Your task to perform on an android device: change the upload size in google photos Image 0: 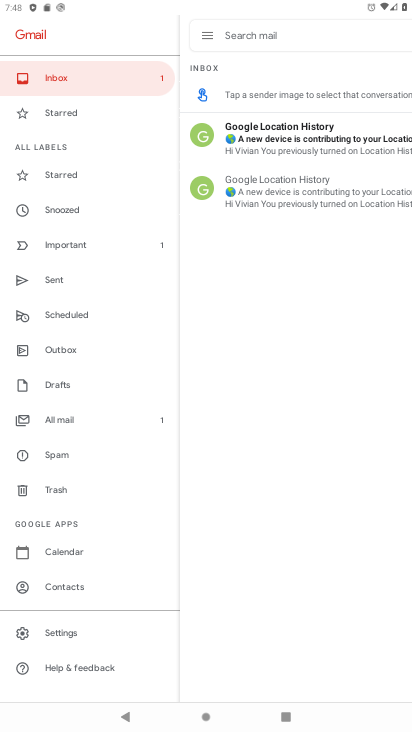
Step 0: press home button
Your task to perform on an android device: change the upload size in google photos Image 1: 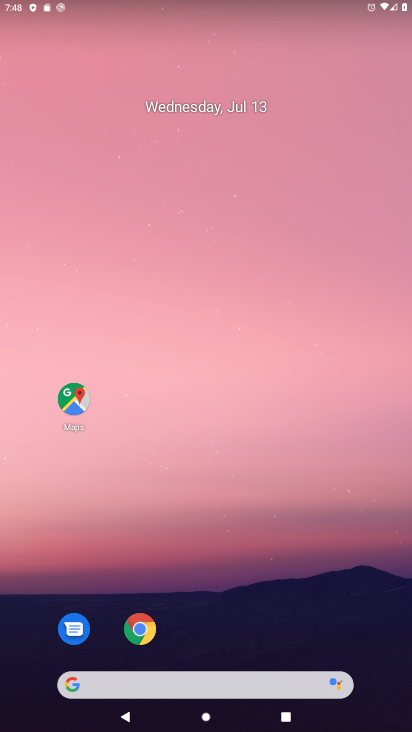
Step 1: click (136, 154)
Your task to perform on an android device: change the upload size in google photos Image 2: 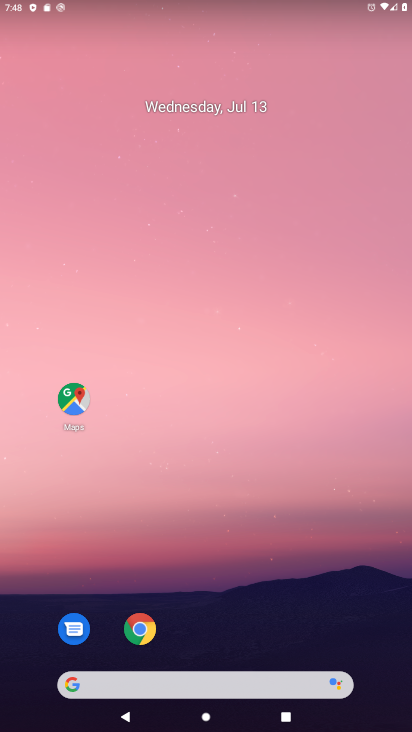
Step 2: drag from (35, 696) to (251, 7)
Your task to perform on an android device: change the upload size in google photos Image 3: 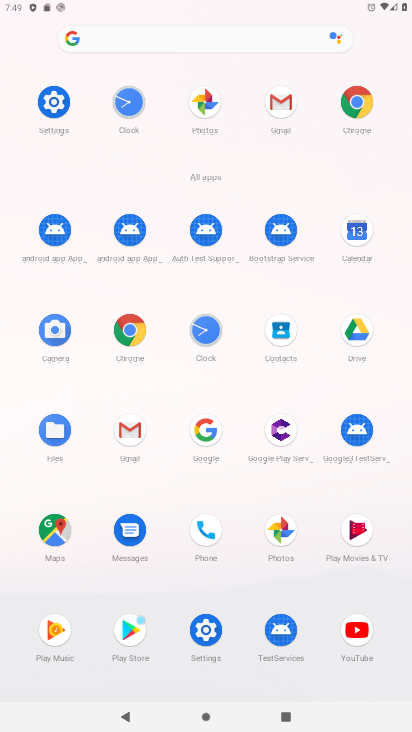
Step 3: click (284, 533)
Your task to perform on an android device: change the upload size in google photos Image 4: 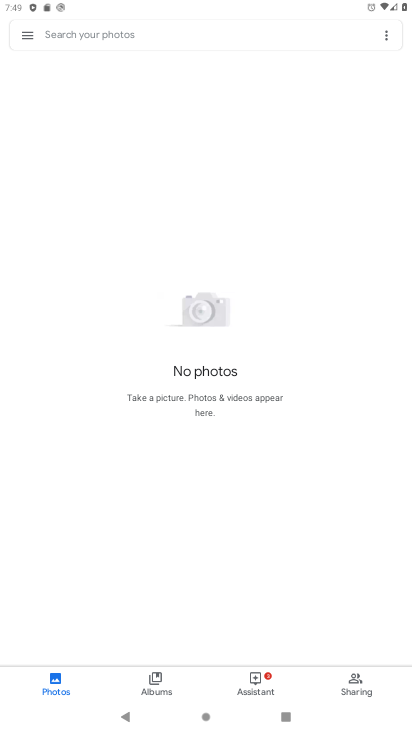
Step 4: click (26, 32)
Your task to perform on an android device: change the upload size in google photos Image 5: 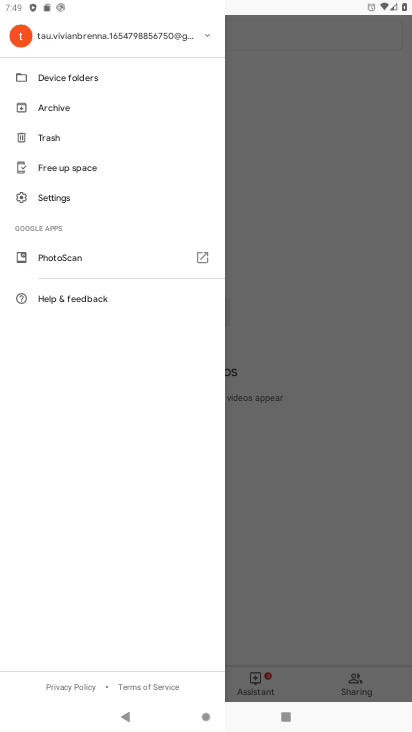
Step 5: click (70, 198)
Your task to perform on an android device: change the upload size in google photos Image 6: 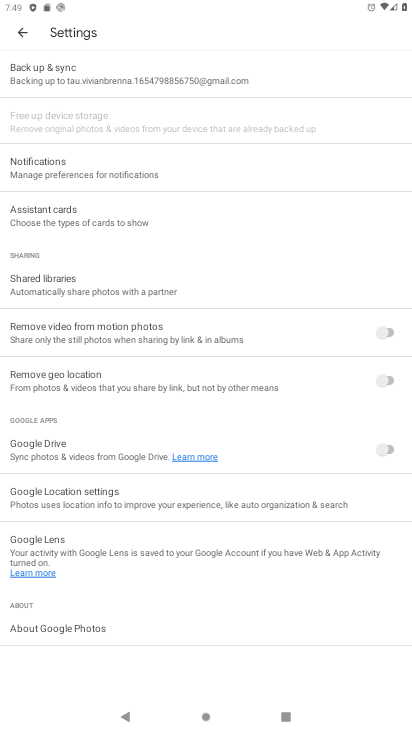
Step 6: click (71, 174)
Your task to perform on an android device: change the upload size in google photos Image 7: 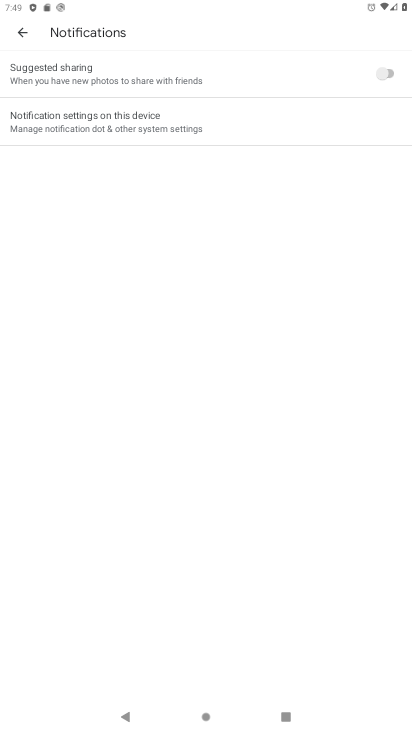
Step 7: click (71, 133)
Your task to perform on an android device: change the upload size in google photos Image 8: 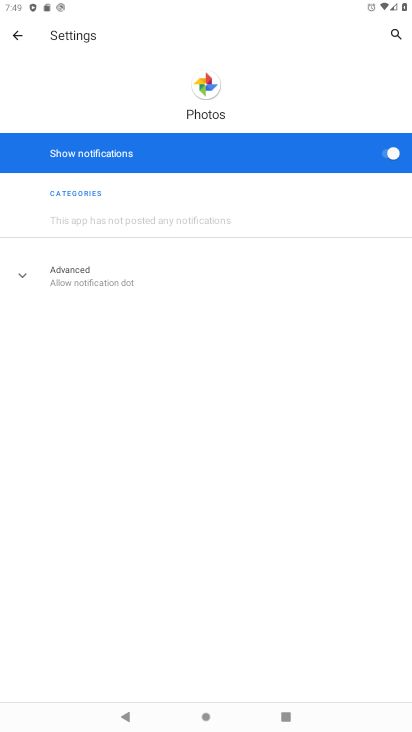
Step 8: click (14, 39)
Your task to perform on an android device: change the upload size in google photos Image 9: 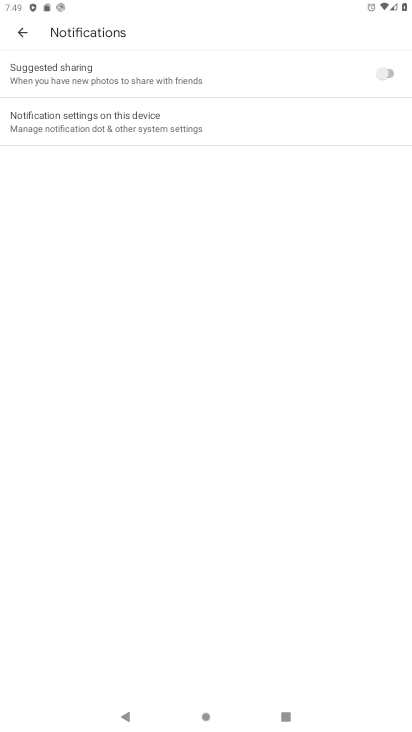
Step 9: click (14, 39)
Your task to perform on an android device: change the upload size in google photos Image 10: 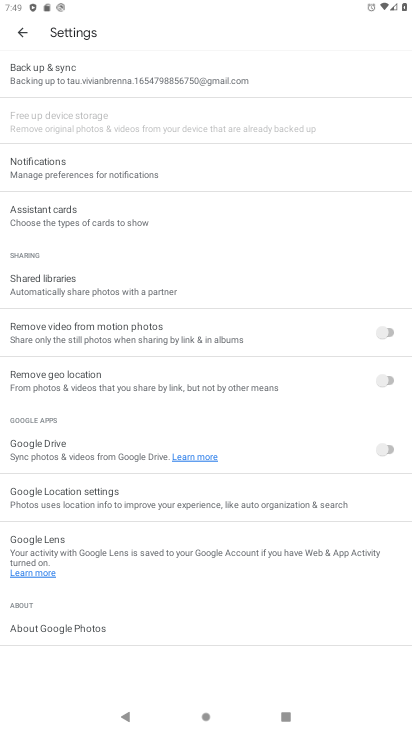
Step 10: click (90, 75)
Your task to perform on an android device: change the upload size in google photos Image 11: 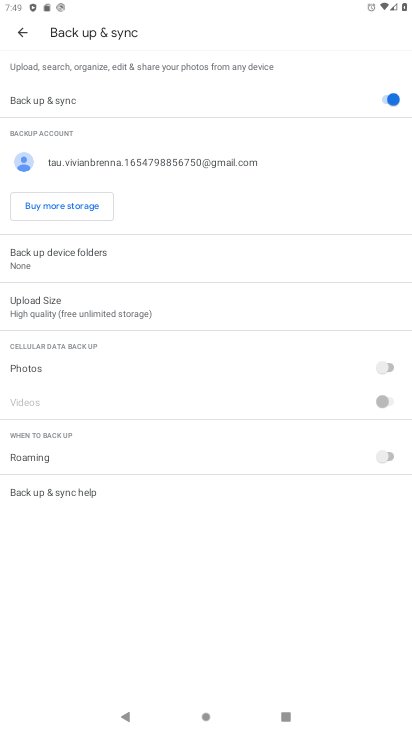
Step 11: click (72, 297)
Your task to perform on an android device: change the upload size in google photos Image 12: 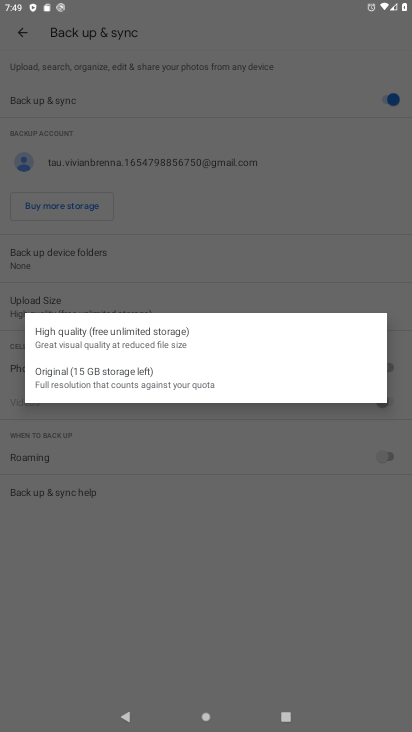
Step 12: click (84, 377)
Your task to perform on an android device: change the upload size in google photos Image 13: 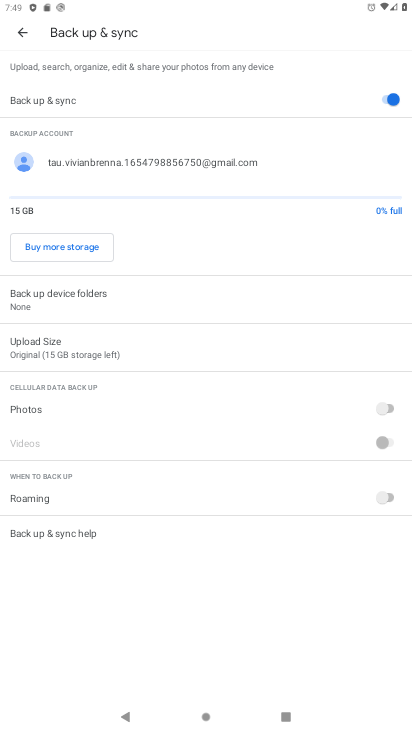
Step 13: task complete